Your task to perform on an android device: Open Youtube and go to "Your channel" Image 0: 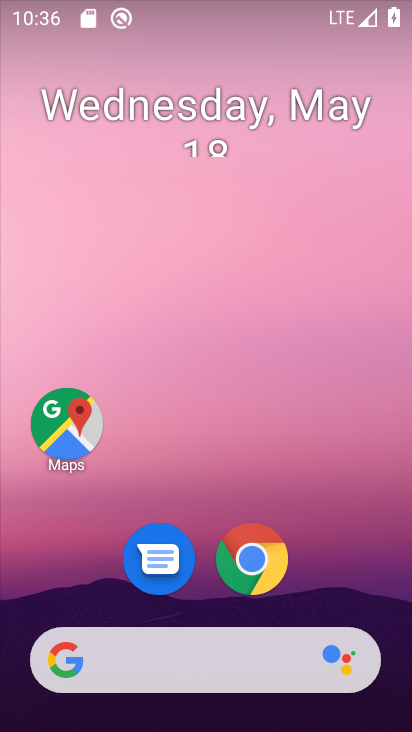
Step 0: drag from (218, 589) to (286, 122)
Your task to perform on an android device: Open Youtube and go to "Your channel" Image 1: 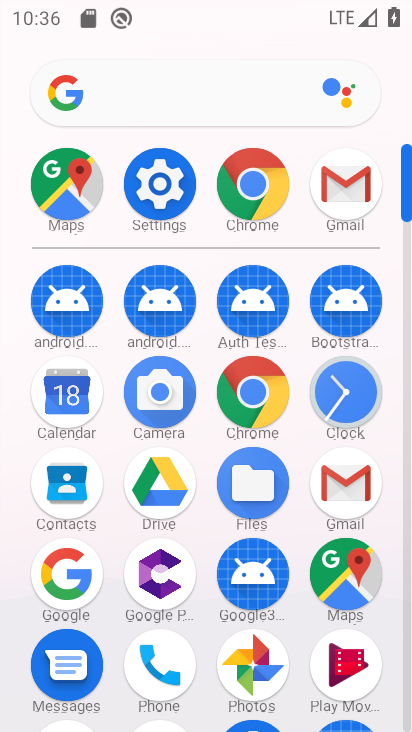
Step 1: drag from (219, 595) to (263, 301)
Your task to perform on an android device: Open Youtube and go to "Your channel" Image 2: 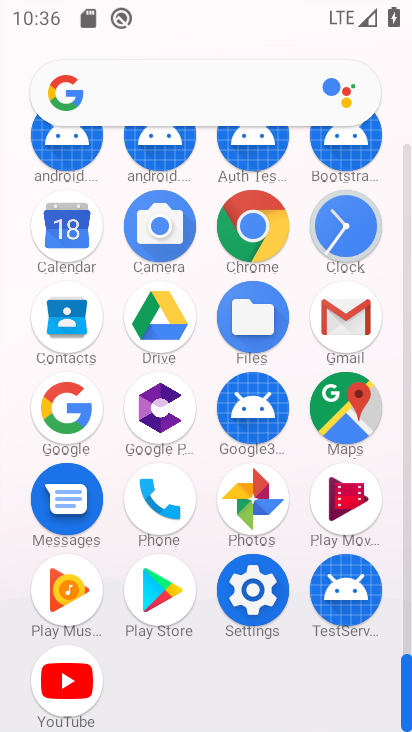
Step 2: click (70, 687)
Your task to perform on an android device: Open Youtube and go to "Your channel" Image 3: 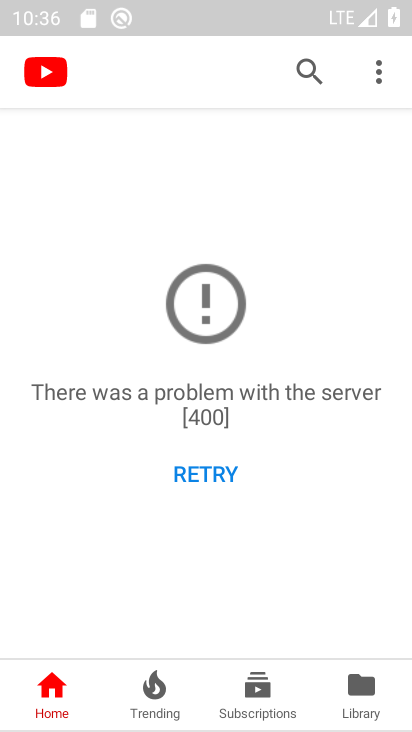
Step 3: click (212, 479)
Your task to perform on an android device: Open Youtube and go to "Your channel" Image 4: 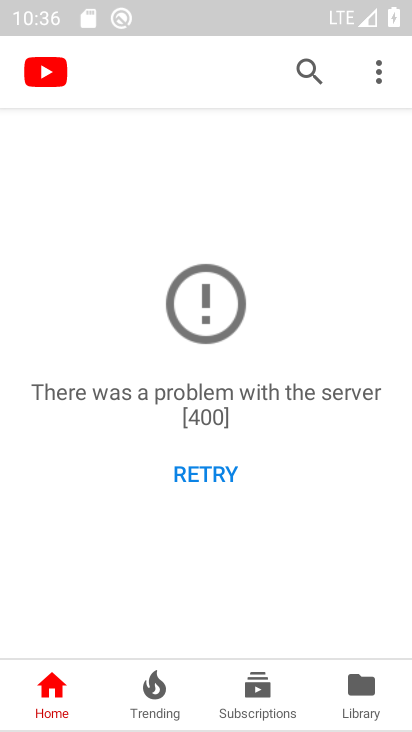
Step 4: click (212, 479)
Your task to perform on an android device: Open Youtube and go to "Your channel" Image 5: 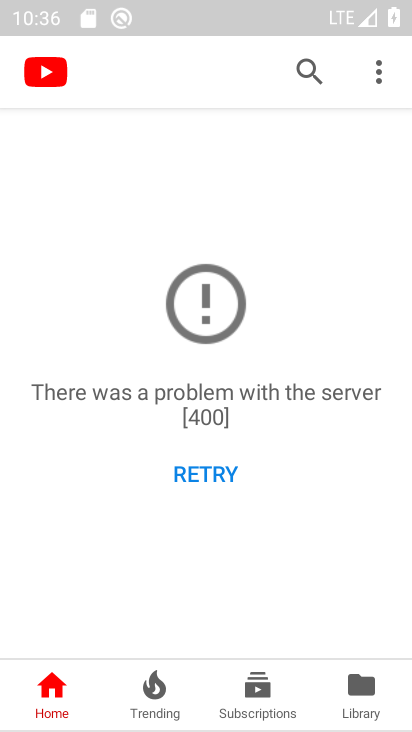
Step 5: click (212, 479)
Your task to perform on an android device: Open Youtube and go to "Your channel" Image 6: 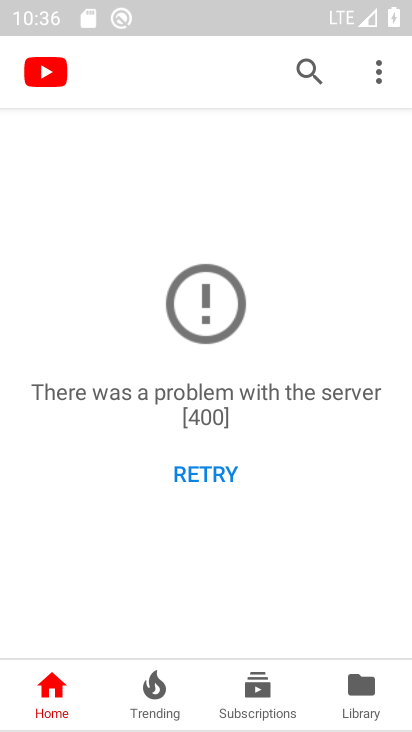
Step 6: click (212, 478)
Your task to perform on an android device: Open Youtube and go to "Your channel" Image 7: 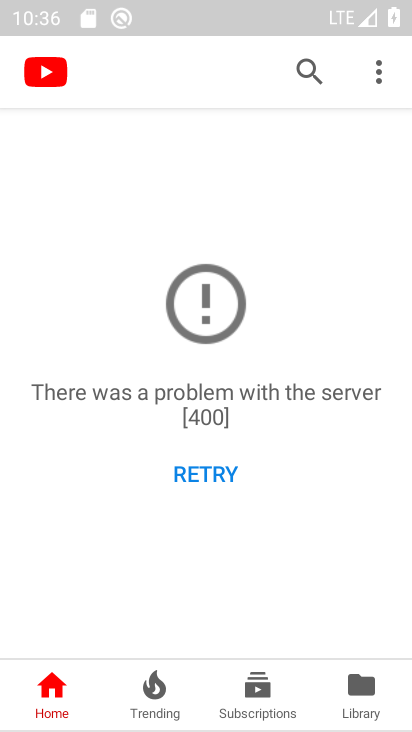
Step 7: click (212, 478)
Your task to perform on an android device: Open Youtube and go to "Your channel" Image 8: 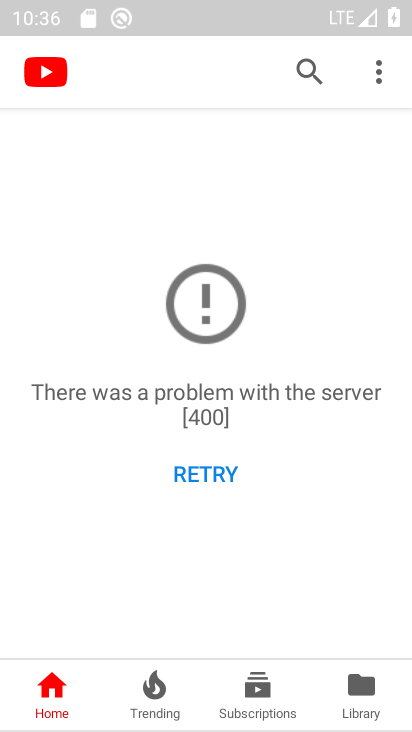
Step 8: click (187, 470)
Your task to perform on an android device: Open Youtube and go to "Your channel" Image 9: 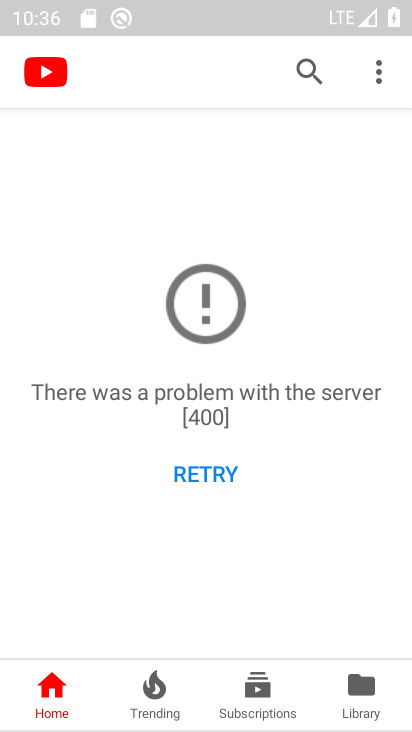
Step 9: task complete